Your task to perform on an android device: What's the weather? Image 0: 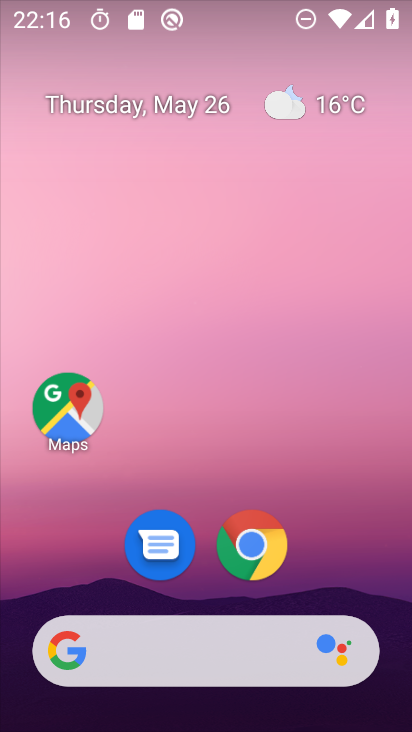
Step 0: drag from (316, 545) to (333, 48)
Your task to perform on an android device: What's the weather? Image 1: 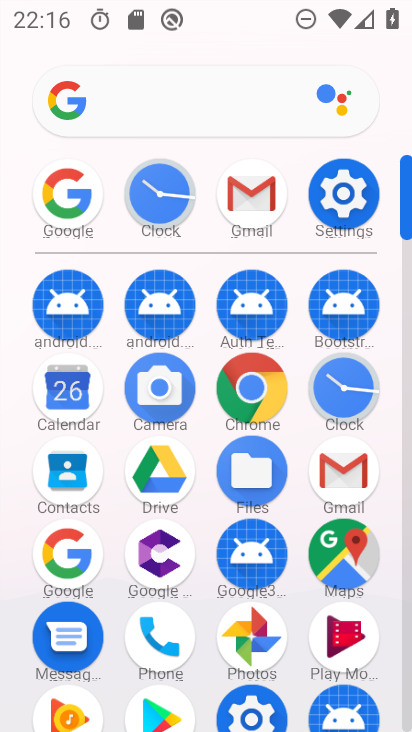
Step 1: click (72, 553)
Your task to perform on an android device: What's the weather? Image 2: 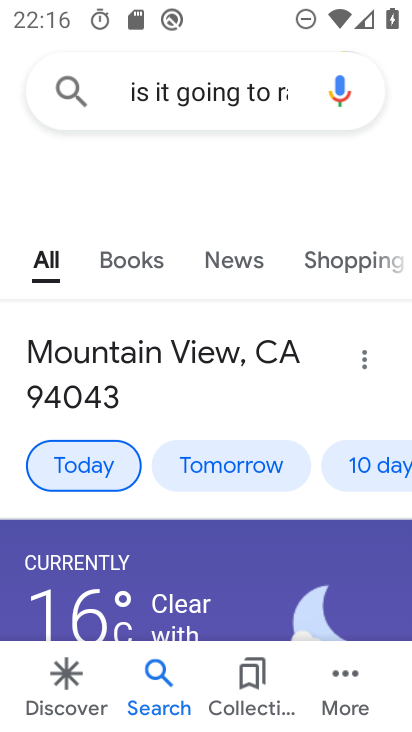
Step 2: click (241, 92)
Your task to perform on an android device: What's the weather? Image 3: 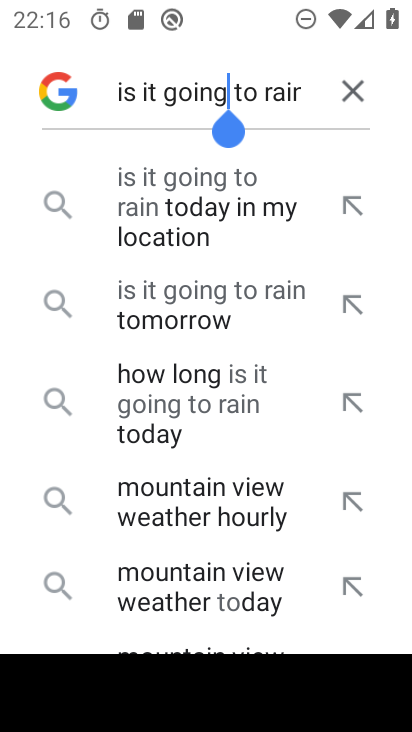
Step 3: click (353, 81)
Your task to perform on an android device: What's the weather? Image 4: 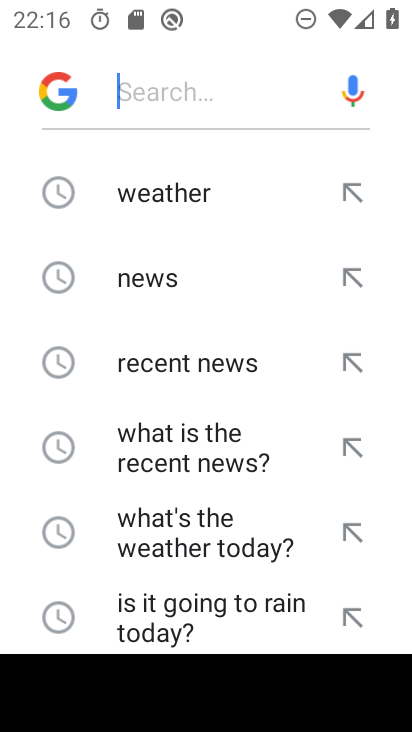
Step 4: click (170, 202)
Your task to perform on an android device: What's the weather? Image 5: 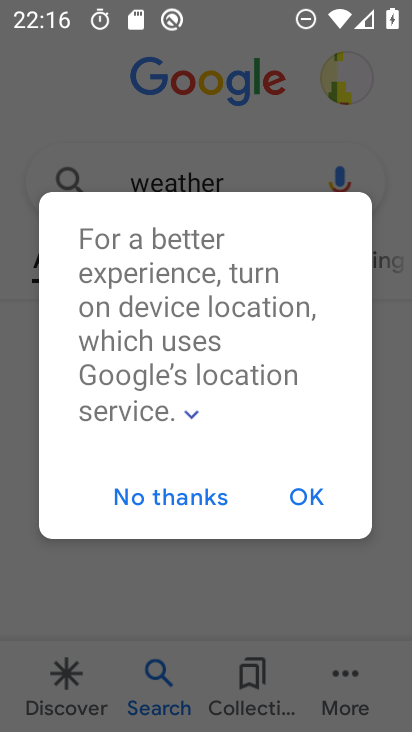
Step 5: click (175, 501)
Your task to perform on an android device: What's the weather? Image 6: 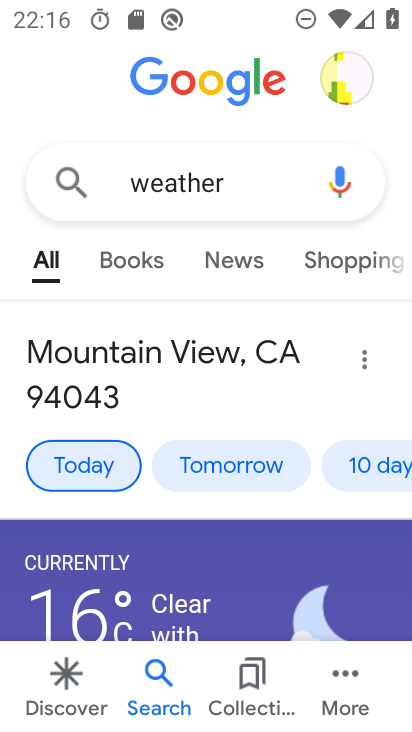
Step 6: task complete